Your task to perform on an android device: turn on bluetooth scan Image 0: 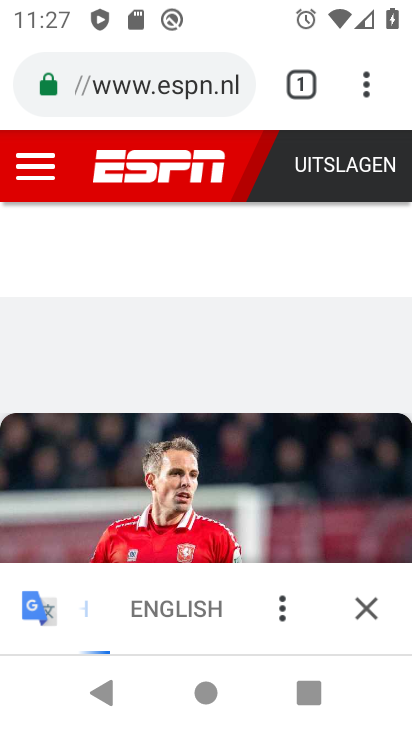
Step 0: press home button
Your task to perform on an android device: turn on bluetooth scan Image 1: 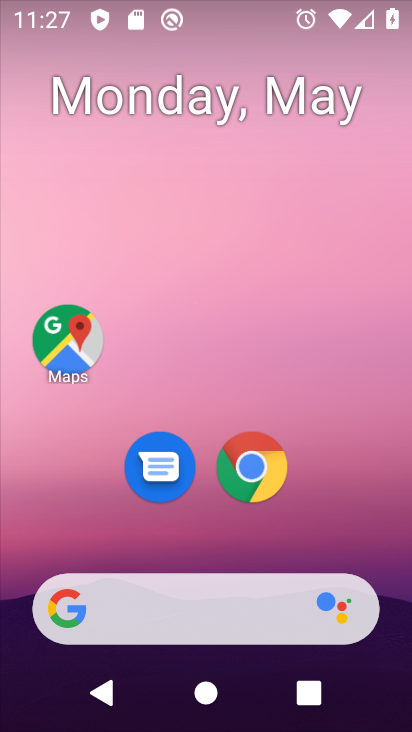
Step 1: drag from (340, 452) to (281, 216)
Your task to perform on an android device: turn on bluetooth scan Image 2: 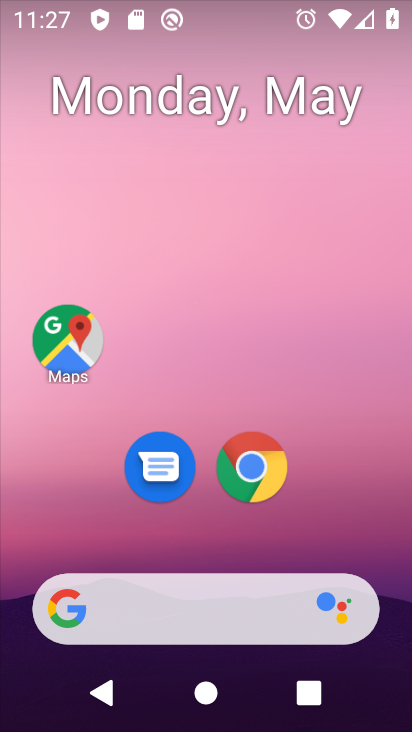
Step 2: drag from (268, 508) to (206, 49)
Your task to perform on an android device: turn on bluetooth scan Image 3: 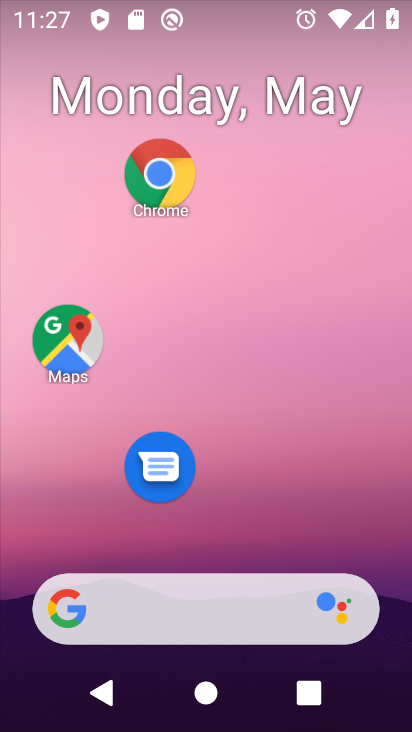
Step 3: drag from (280, 515) to (178, 39)
Your task to perform on an android device: turn on bluetooth scan Image 4: 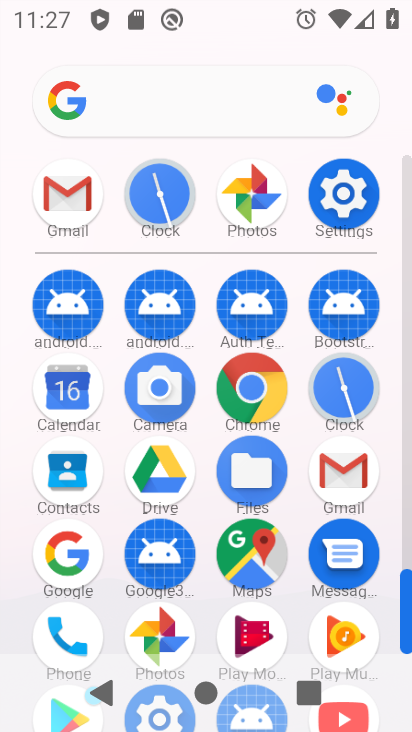
Step 4: click (325, 232)
Your task to perform on an android device: turn on bluetooth scan Image 5: 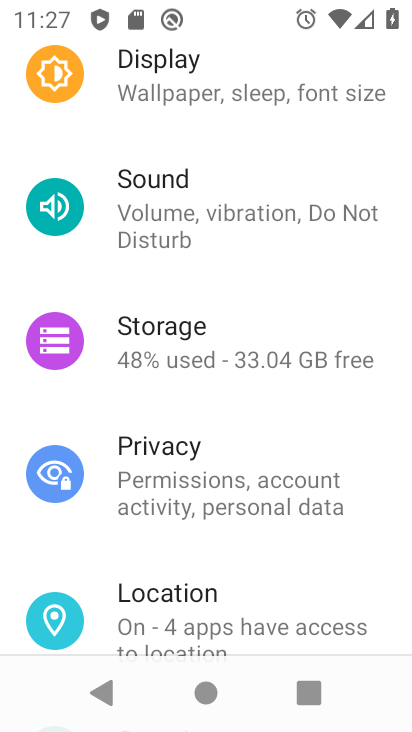
Step 5: drag from (269, 521) to (229, 298)
Your task to perform on an android device: turn on bluetooth scan Image 6: 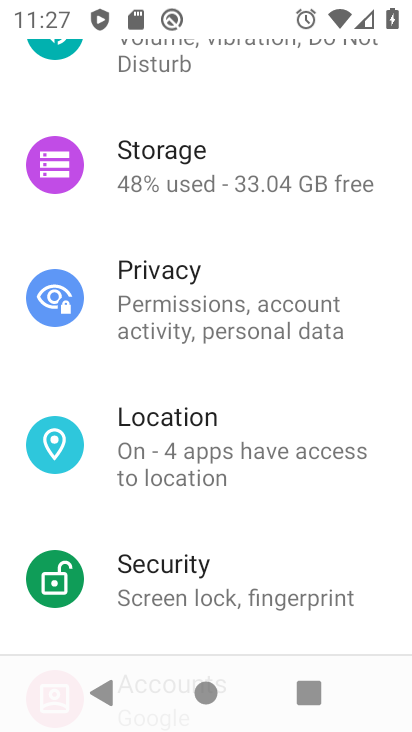
Step 6: click (220, 479)
Your task to perform on an android device: turn on bluetooth scan Image 7: 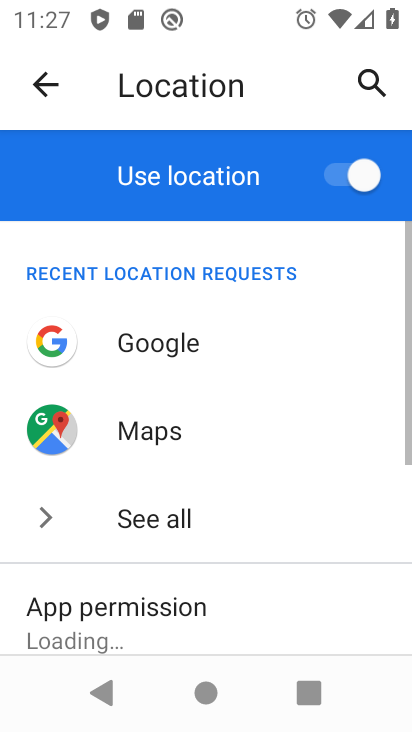
Step 7: drag from (212, 522) to (212, 338)
Your task to perform on an android device: turn on bluetooth scan Image 8: 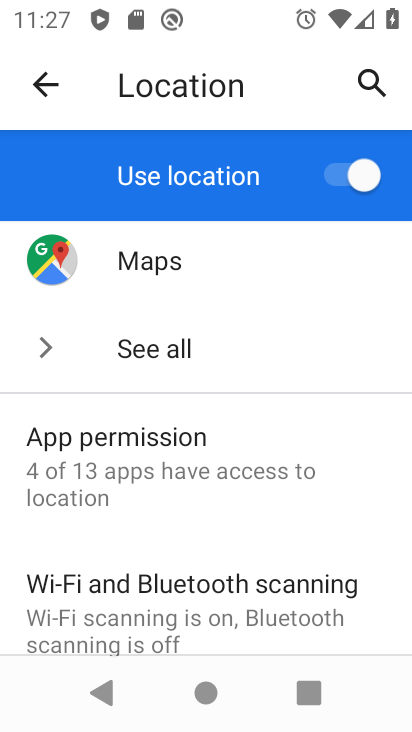
Step 8: drag from (225, 602) to (213, 235)
Your task to perform on an android device: turn on bluetooth scan Image 9: 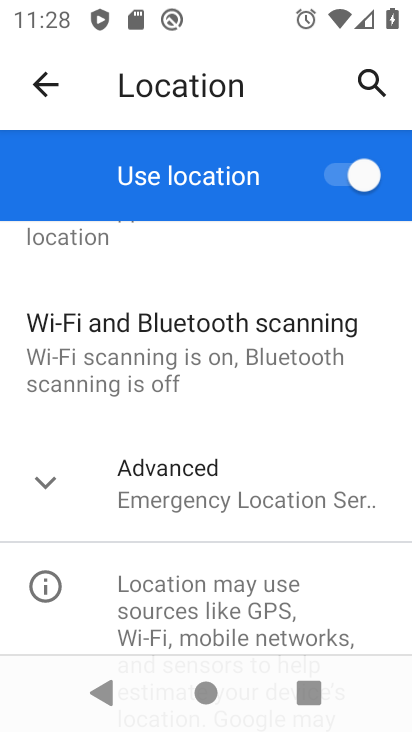
Step 9: click (144, 368)
Your task to perform on an android device: turn on bluetooth scan Image 10: 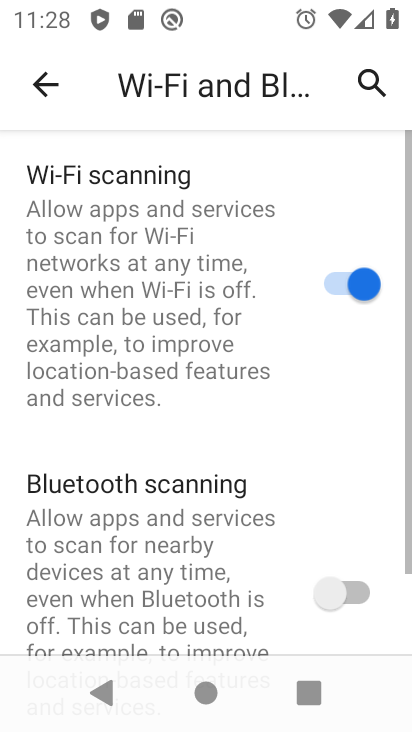
Step 10: click (278, 518)
Your task to perform on an android device: turn on bluetooth scan Image 11: 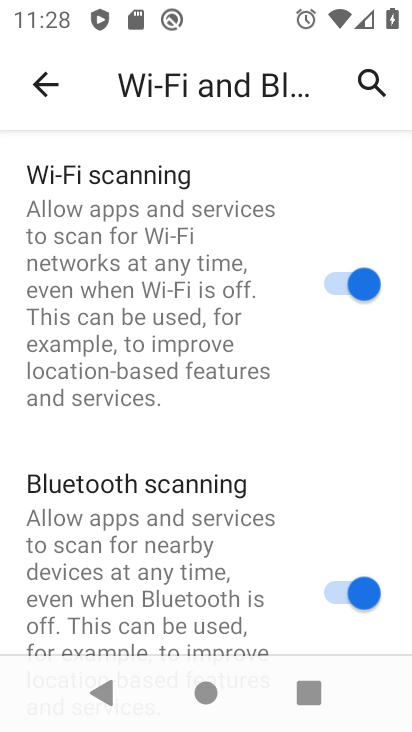
Step 11: task complete